Your task to perform on an android device: open a bookmark in the chrome app Image 0: 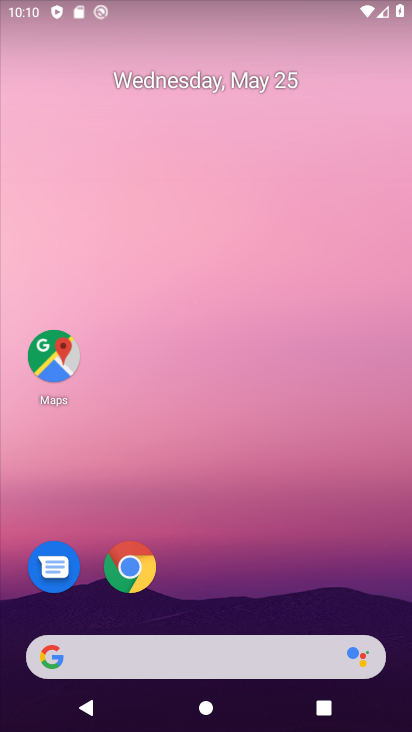
Step 0: drag from (158, 404) to (29, 426)
Your task to perform on an android device: open a bookmark in the chrome app Image 1: 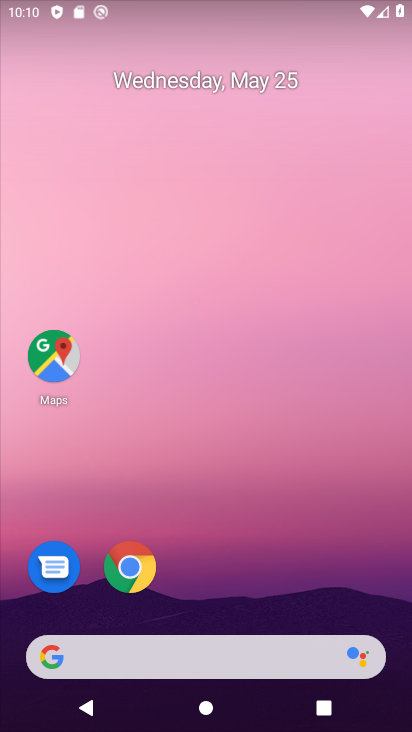
Step 1: press back button
Your task to perform on an android device: open a bookmark in the chrome app Image 2: 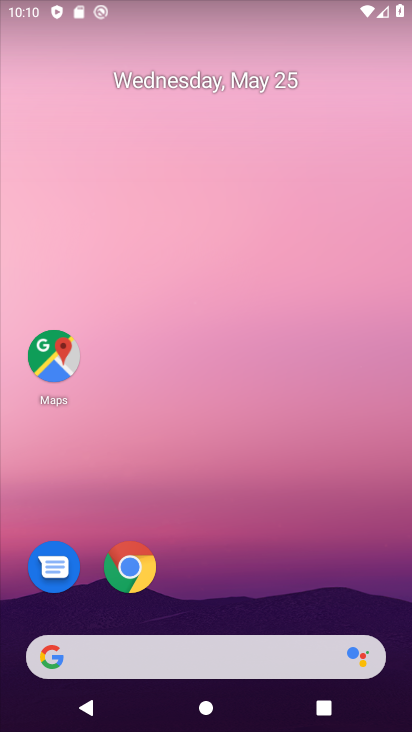
Step 2: drag from (266, 708) to (196, 4)
Your task to perform on an android device: open a bookmark in the chrome app Image 3: 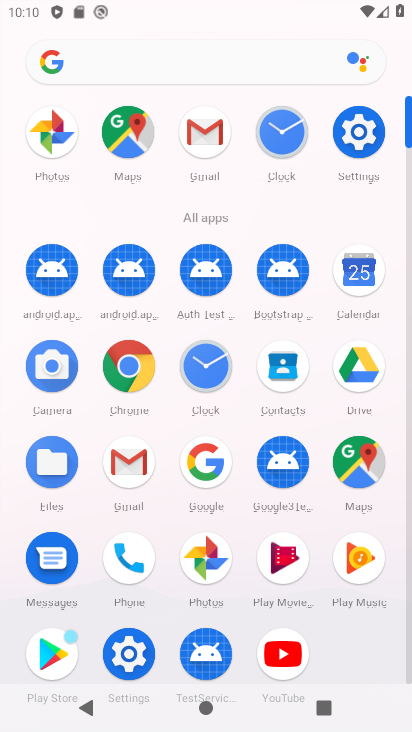
Step 3: click (137, 366)
Your task to perform on an android device: open a bookmark in the chrome app Image 4: 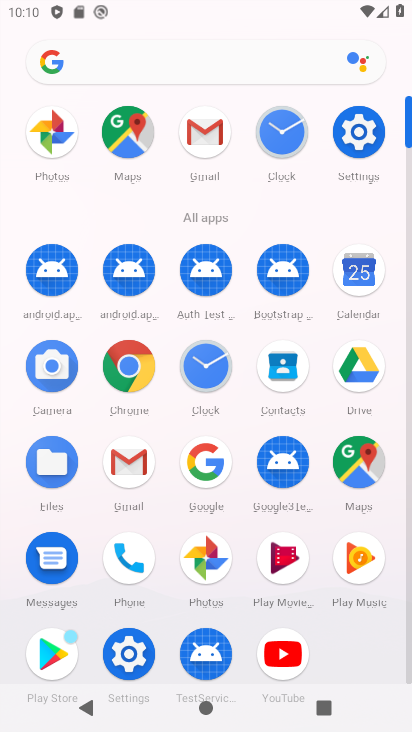
Step 4: click (137, 366)
Your task to perform on an android device: open a bookmark in the chrome app Image 5: 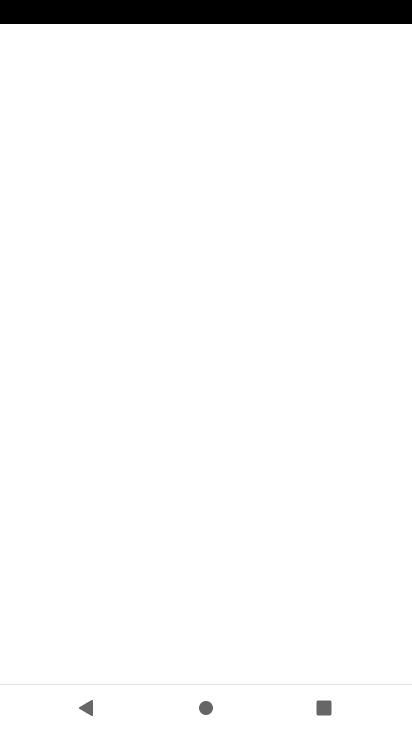
Step 5: click (136, 365)
Your task to perform on an android device: open a bookmark in the chrome app Image 6: 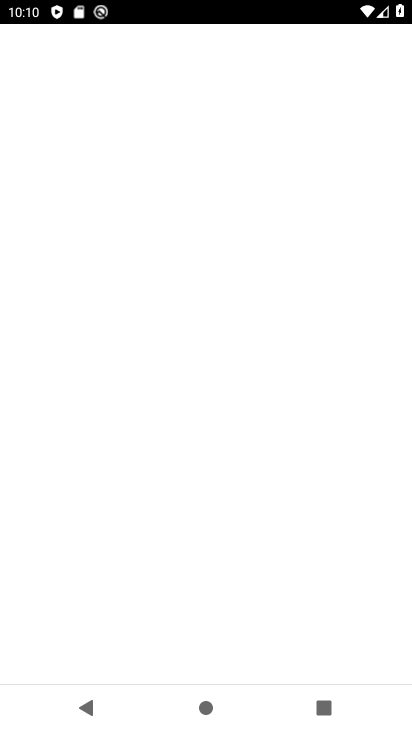
Step 6: click (137, 366)
Your task to perform on an android device: open a bookmark in the chrome app Image 7: 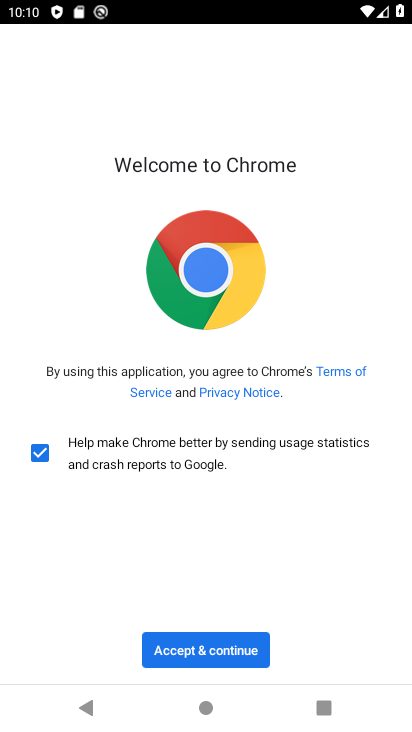
Step 7: click (206, 657)
Your task to perform on an android device: open a bookmark in the chrome app Image 8: 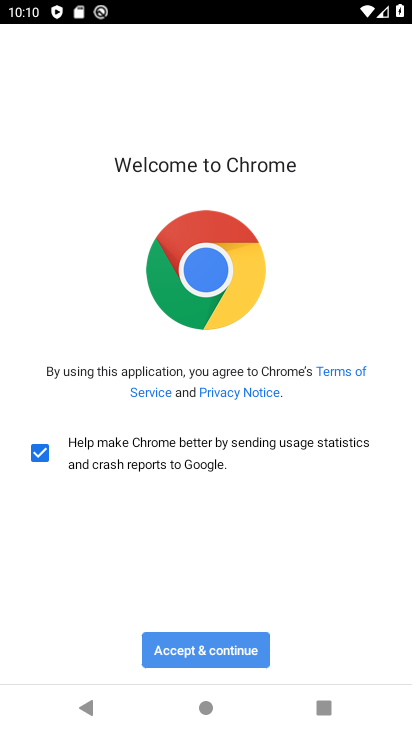
Step 8: click (206, 657)
Your task to perform on an android device: open a bookmark in the chrome app Image 9: 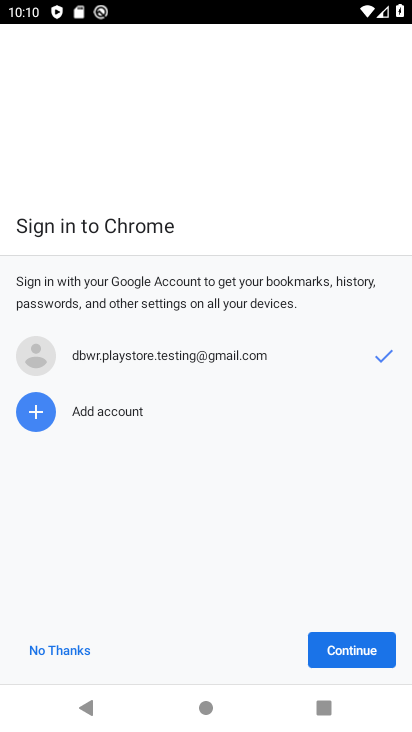
Step 9: click (206, 656)
Your task to perform on an android device: open a bookmark in the chrome app Image 10: 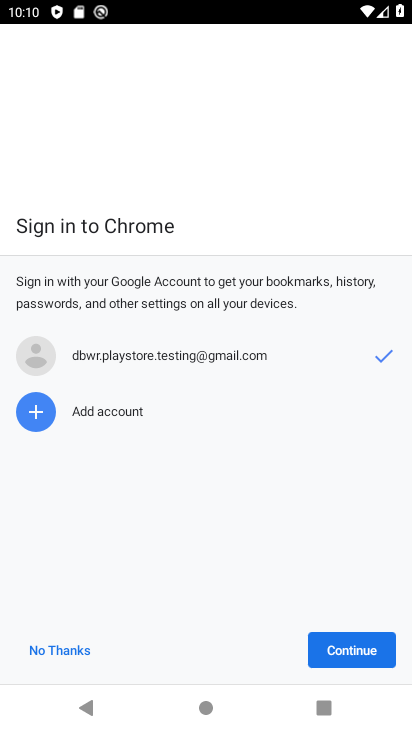
Step 10: click (376, 645)
Your task to perform on an android device: open a bookmark in the chrome app Image 11: 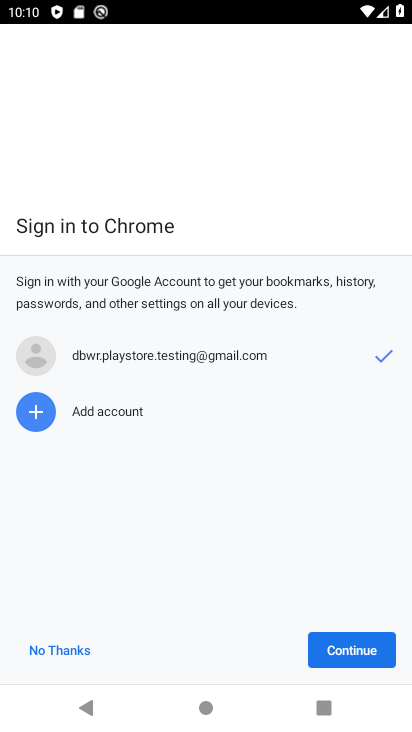
Step 11: click (376, 645)
Your task to perform on an android device: open a bookmark in the chrome app Image 12: 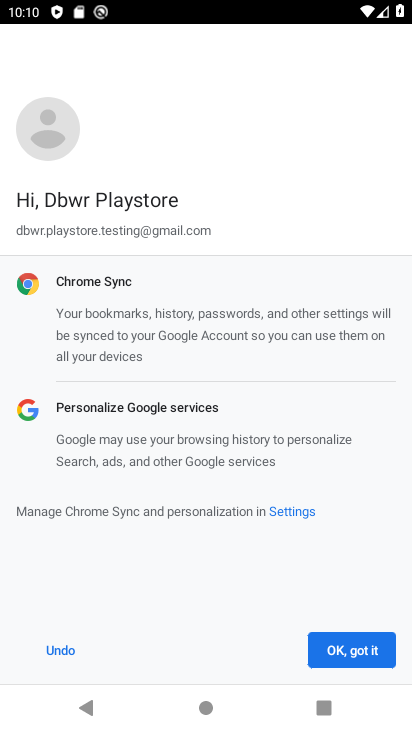
Step 12: click (349, 655)
Your task to perform on an android device: open a bookmark in the chrome app Image 13: 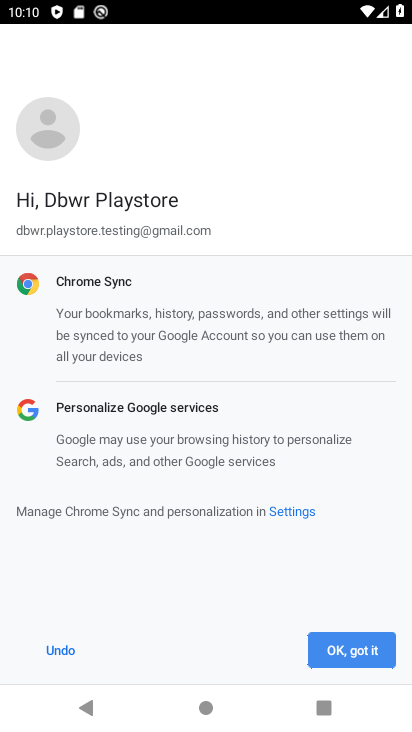
Step 13: click (351, 654)
Your task to perform on an android device: open a bookmark in the chrome app Image 14: 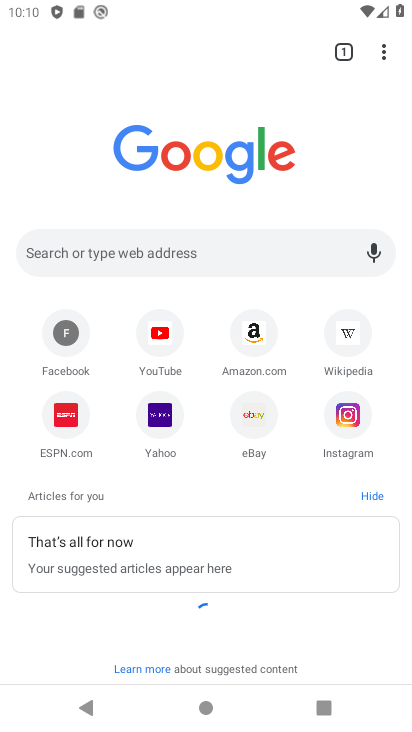
Step 14: drag from (379, 46) to (202, 194)
Your task to perform on an android device: open a bookmark in the chrome app Image 15: 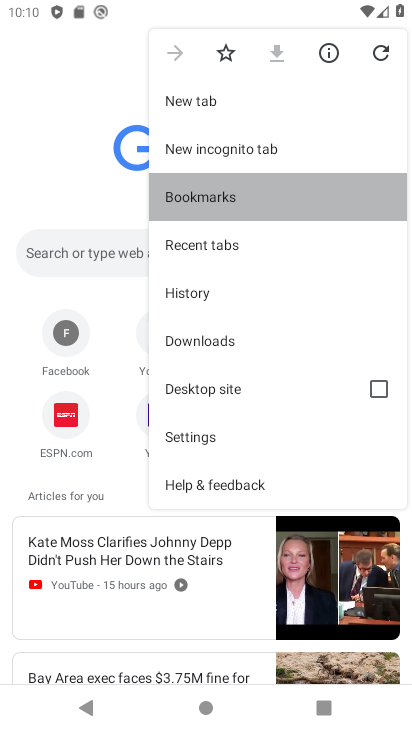
Step 15: click (202, 194)
Your task to perform on an android device: open a bookmark in the chrome app Image 16: 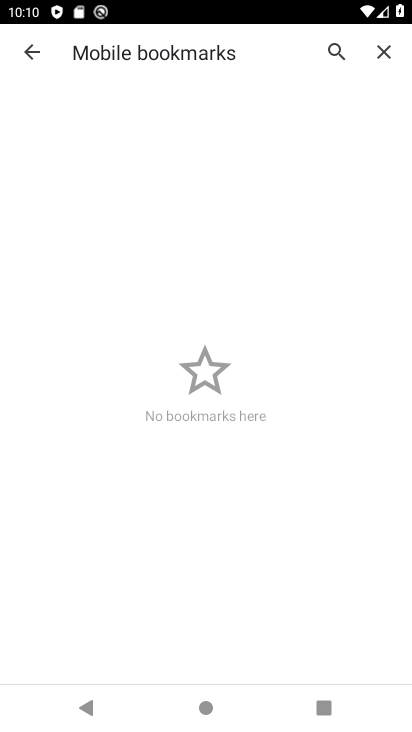
Step 16: task complete